Your task to perform on an android device: View the shopping cart on target.com. Image 0: 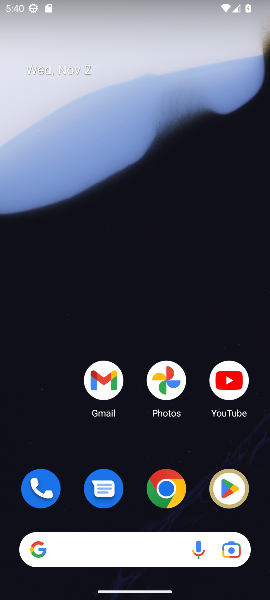
Step 0: click (160, 498)
Your task to perform on an android device: View the shopping cart on target.com. Image 1: 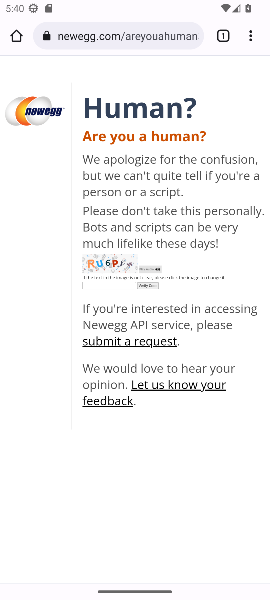
Step 1: click (147, 34)
Your task to perform on an android device: View the shopping cart on target.com. Image 2: 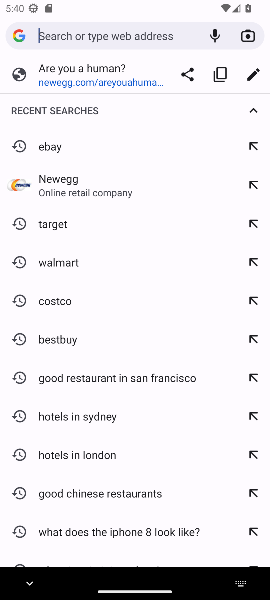
Step 2: type "target.com"
Your task to perform on an android device: View the shopping cart on target.com. Image 3: 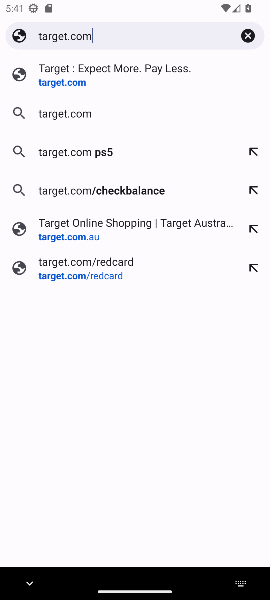
Step 3: click (95, 72)
Your task to perform on an android device: View the shopping cart on target.com. Image 4: 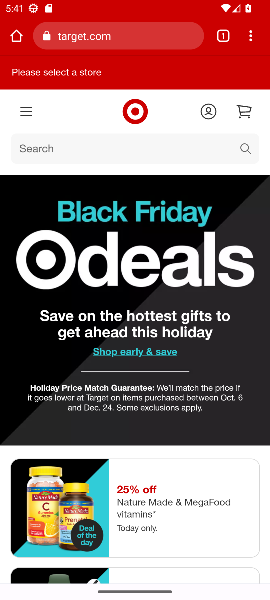
Step 4: click (247, 111)
Your task to perform on an android device: View the shopping cart on target.com. Image 5: 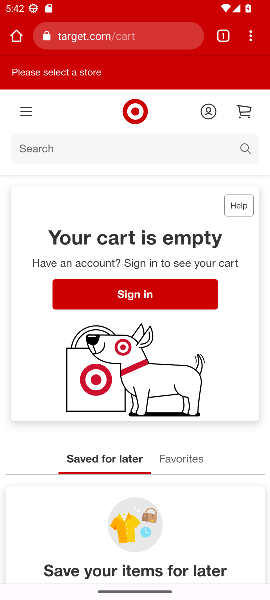
Step 5: task complete